Your task to perform on an android device: open the mobile data screen to see how much data has been used Image 0: 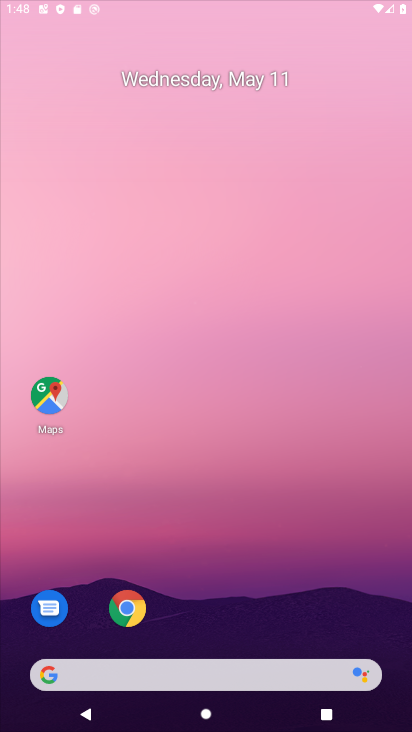
Step 0: press home button
Your task to perform on an android device: open the mobile data screen to see how much data has been used Image 1: 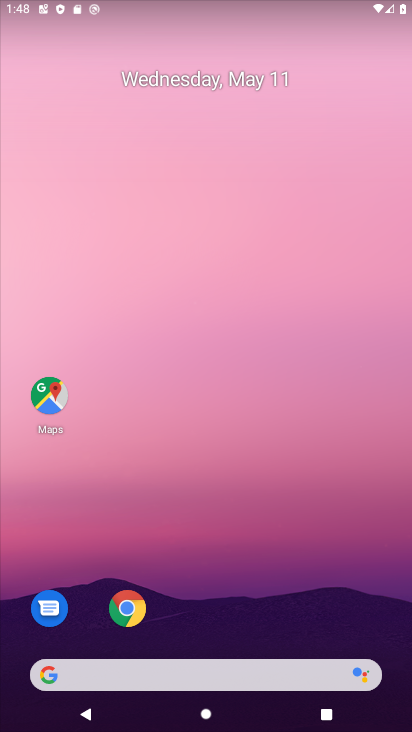
Step 1: drag from (198, 616) to (283, 97)
Your task to perform on an android device: open the mobile data screen to see how much data has been used Image 2: 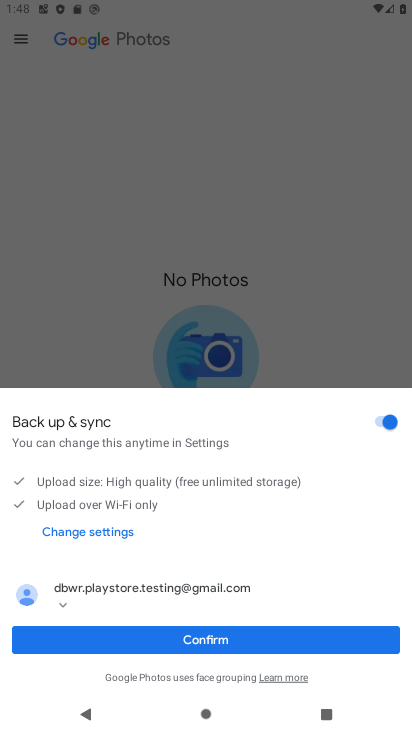
Step 2: press home button
Your task to perform on an android device: open the mobile data screen to see how much data has been used Image 3: 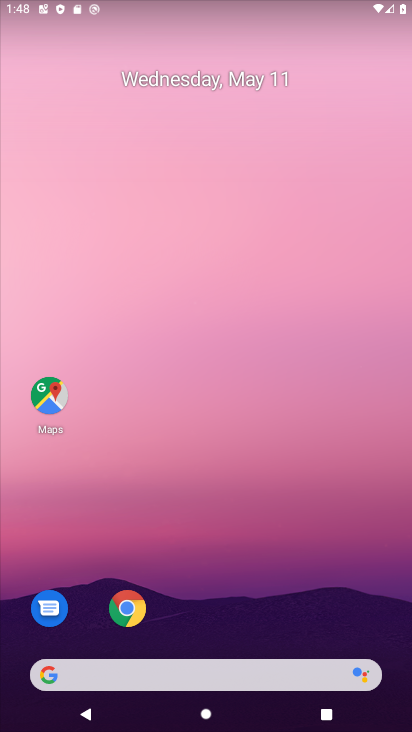
Step 3: drag from (217, 574) to (209, 61)
Your task to perform on an android device: open the mobile data screen to see how much data has been used Image 4: 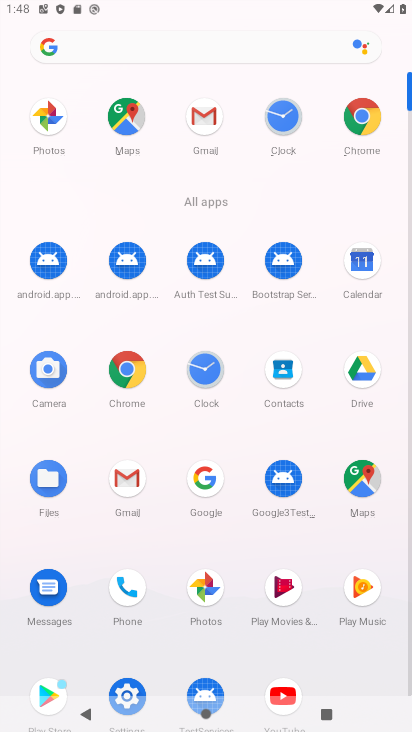
Step 4: click (131, 686)
Your task to perform on an android device: open the mobile data screen to see how much data has been used Image 5: 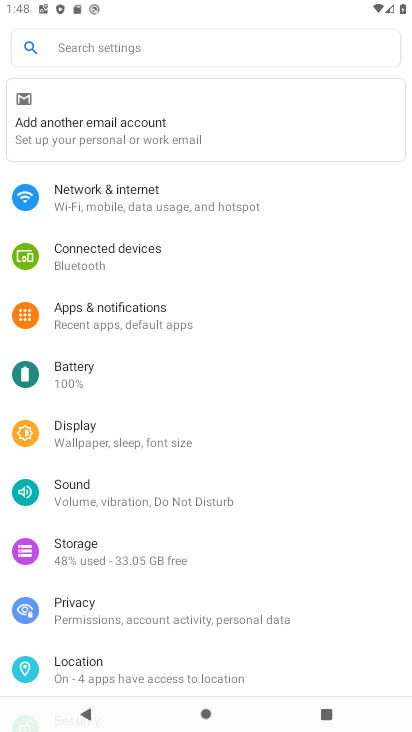
Step 5: click (139, 201)
Your task to perform on an android device: open the mobile data screen to see how much data has been used Image 6: 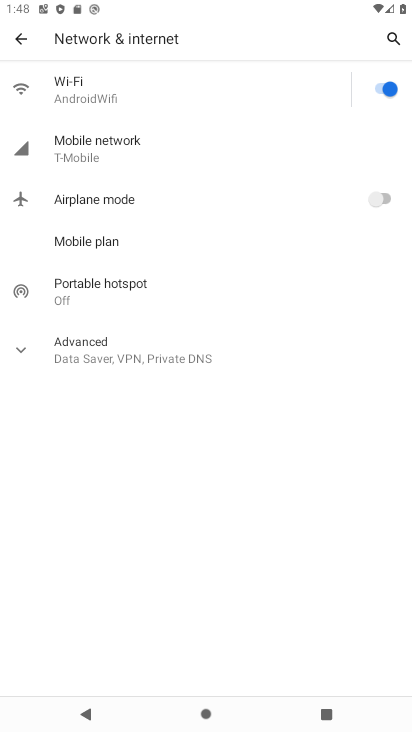
Step 6: click (137, 141)
Your task to perform on an android device: open the mobile data screen to see how much data has been used Image 7: 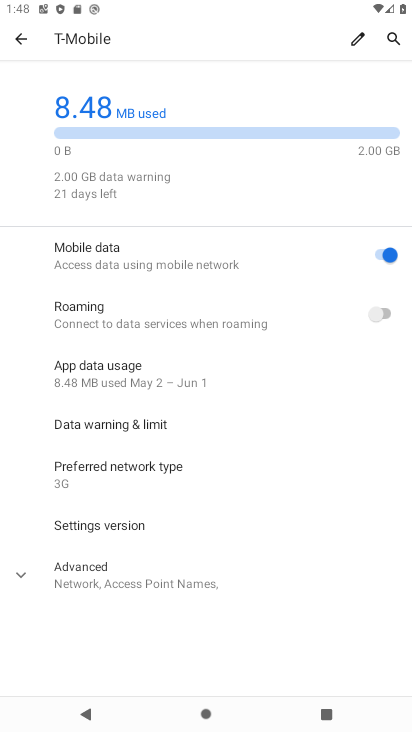
Step 7: click (117, 578)
Your task to perform on an android device: open the mobile data screen to see how much data has been used Image 8: 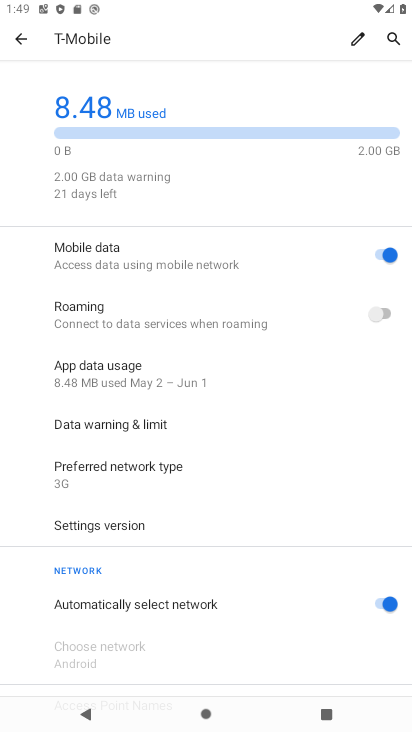
Step 8: click (142, 368)
Your task to perform on an android device: open the mobile data screen to see how much data has been used Image 9: 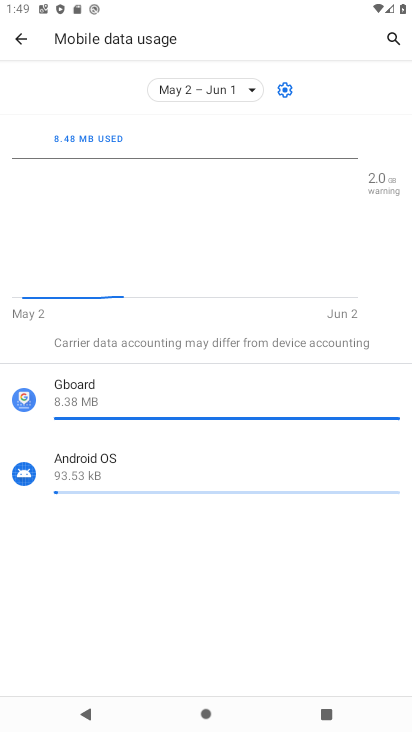
Step 9: task complete